Your task to perform on an android device: Open Google Maps and go to "Timeline" Image 0: 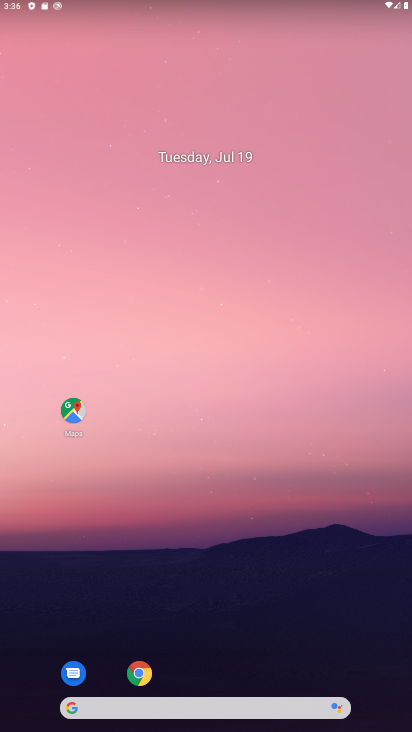
Step 0: click (69, 416)
Your task to perform on an android device: Open Google Maps and go to "Timeline" Image 1: 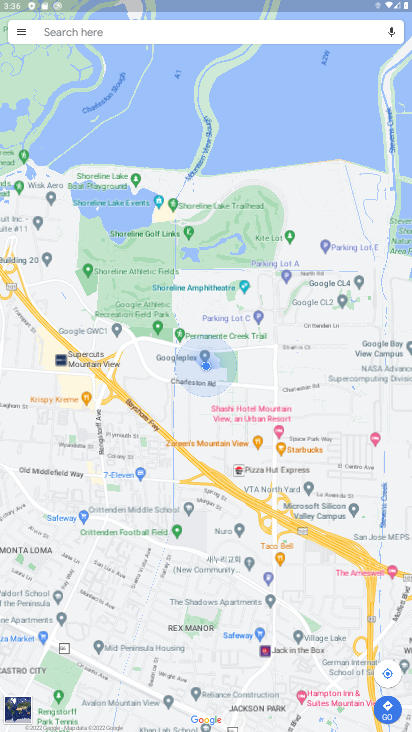
Step 1: click (17, 28)
Your task to perform on an android device: Open Google Maps and go to "Timeline" Image 2: 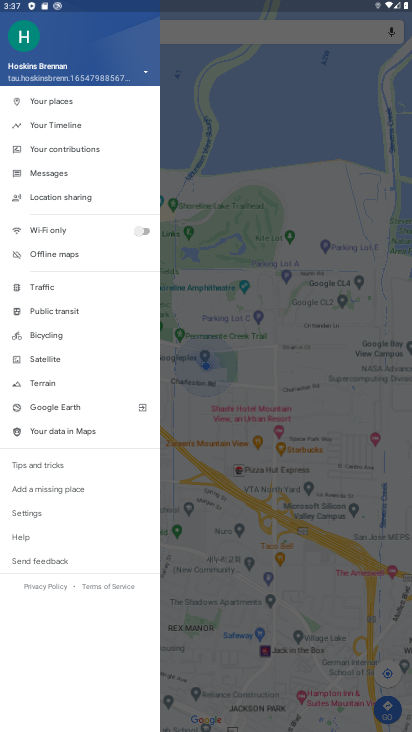
Step 2: click (51, 126)
Your task to perform on an android device: Open Google Maps and go to "Timeline" Image 3: 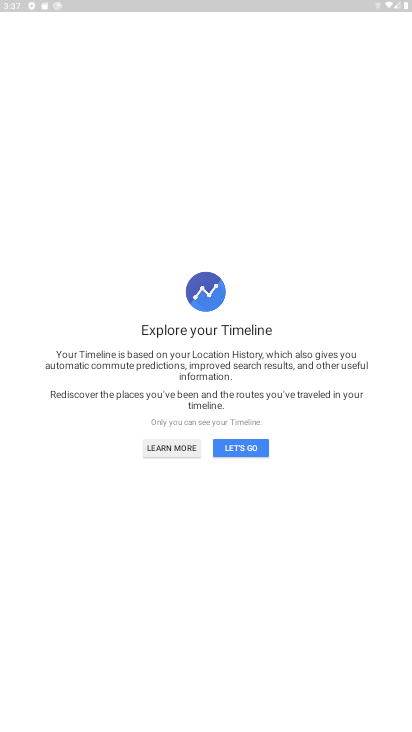
Step 3: click (249, 449)
Your task to perform on an android device: Open Google Maps and go to "Timeline" Image 4: 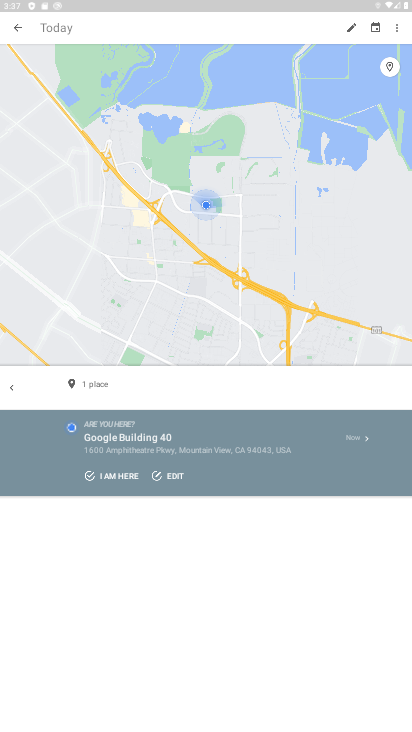
Step 4: click (249, 449)
Your task to perform on an android device: Open Google Maps and go to "Timeline" Image 5: 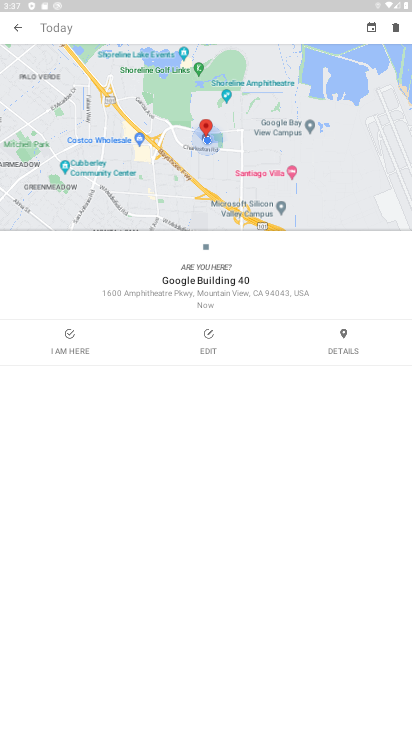
Step 5: task complete